Your task to perform on an android device: turn on the 12-hour format for clock Image 0: 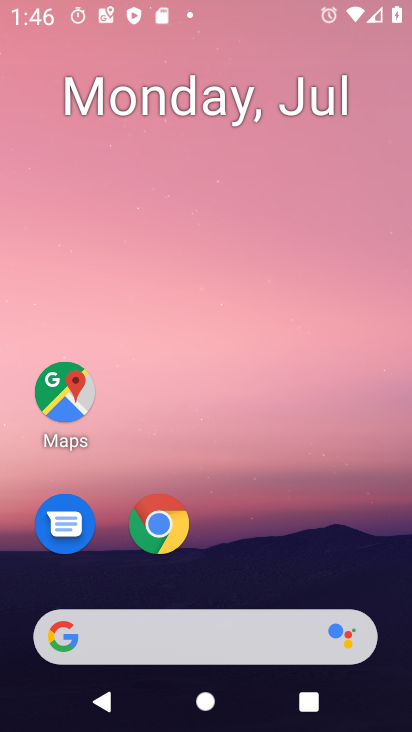
Step 0: press home button
Your task to perform on an android device: turn on the 12-hour format for clock Image 1: 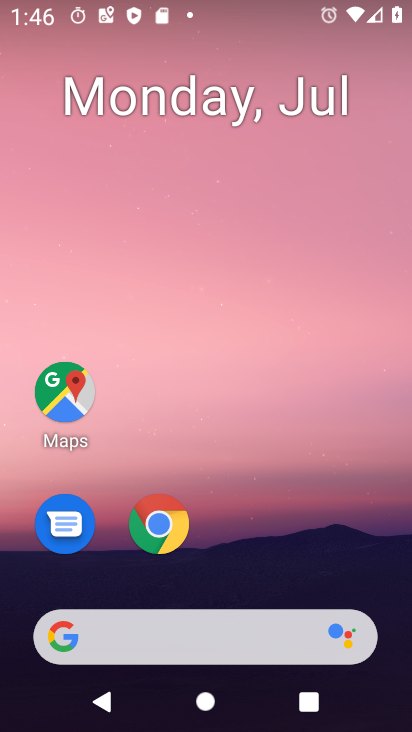
Step 1: drag from (316, 547) to (307, 118)
Your task to perform on an android device: turn on the 12-hour format for clock Image 2: 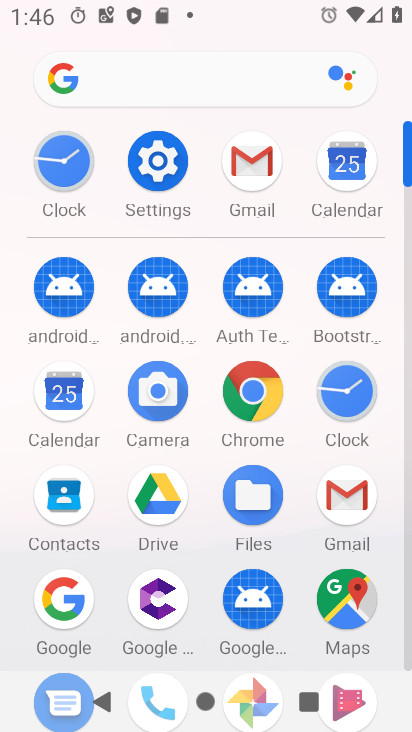
Step 2: click (169, 163)
Your task to perform on an android device: turn on the 12-hour format for clock Image 3: 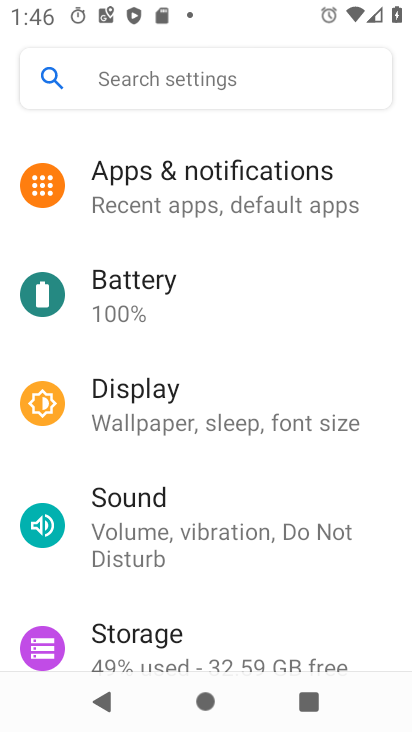
Step 3: drag from (191, 595) to (225, 161)
Your task to perform on an android device: turn on the 12-hour format for clock Image 4: 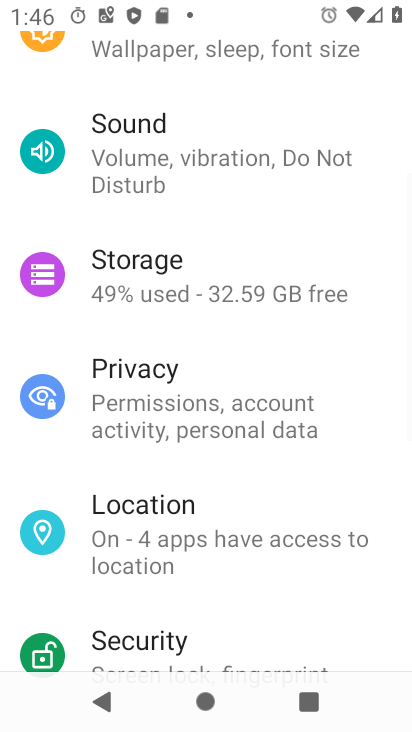
Step 4: drag from (194, 594) to (218, 185)
Your task to perform on an android device: turn on the 12-hour format for clock Image 5: 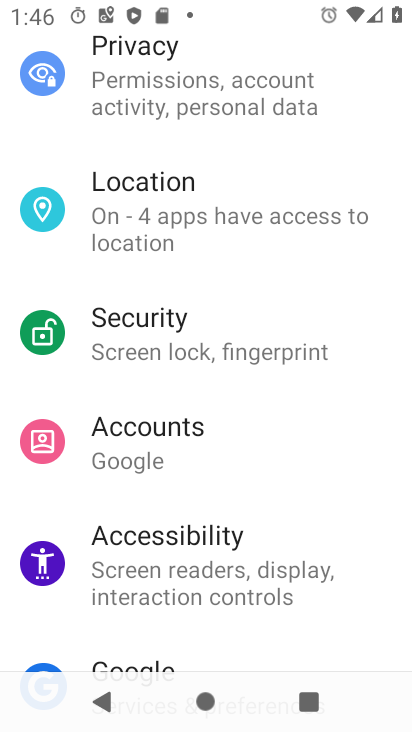
Step 5: drag from (197, 641) to (241, 206)
Your task to perform on an android device: turn on the 12-hour format for clock Image 6: 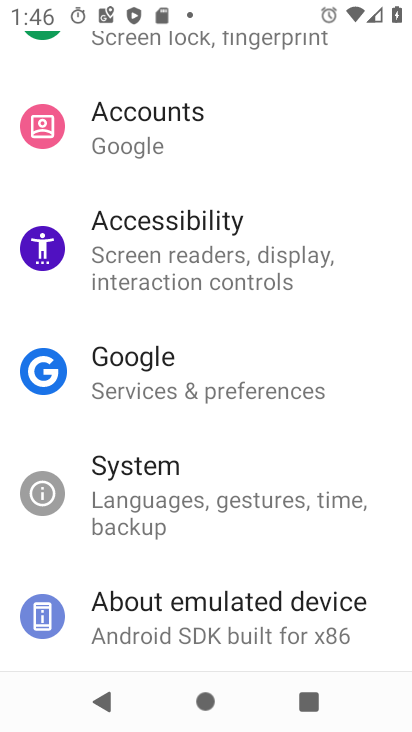
Step 6: click (242, 522)
Your task to perform on an android device: turn on the 12-hour format for clock Image 7: 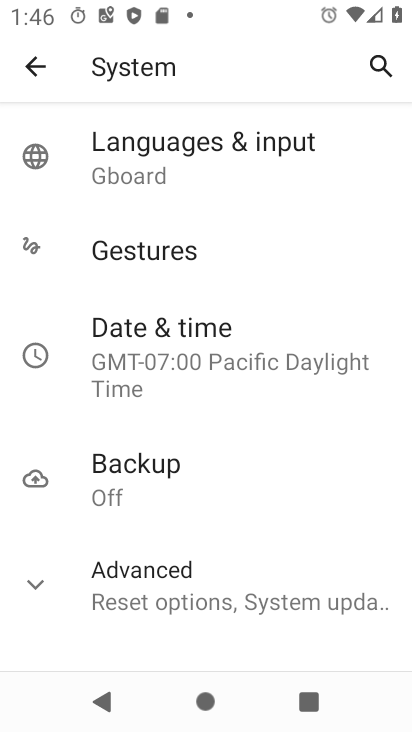
Step 7: click (216, 349)
Your task to perform on an android device: turn on the 12-hour format for clock Image 8: 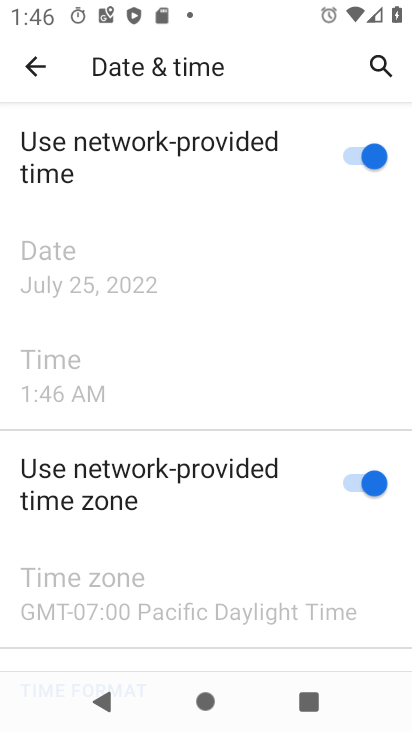
Step 8: task complete